Your task to perform on an android device: Add logitech g910 to the cart on bestbuy, then select checkout. Image 0: 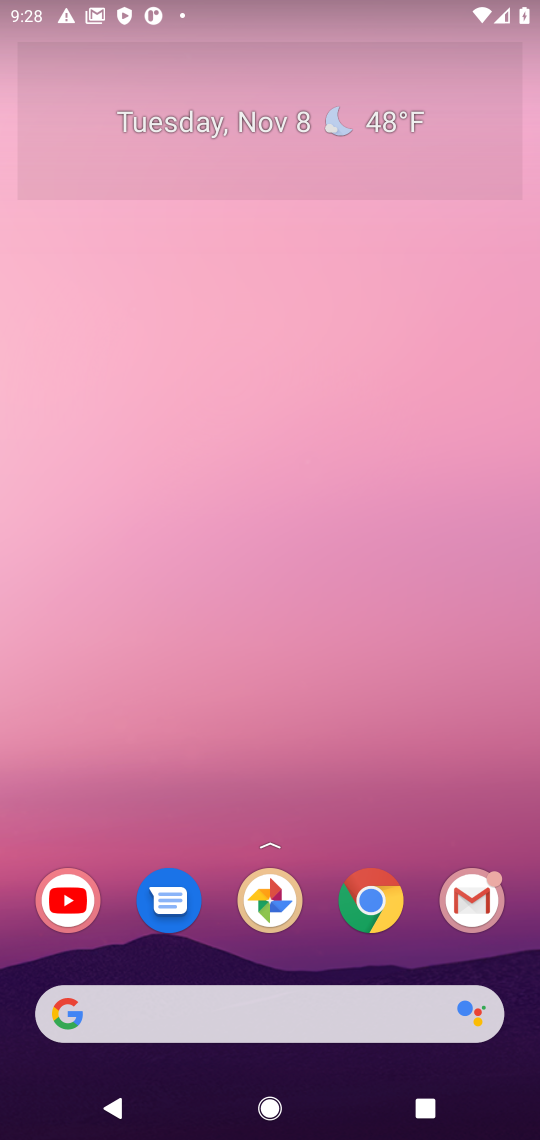
Step 0: click (362, 892)
Your task to perform on an android device: Add logitech g910 to the cart on bestbuy, then select checkout. Image 1: 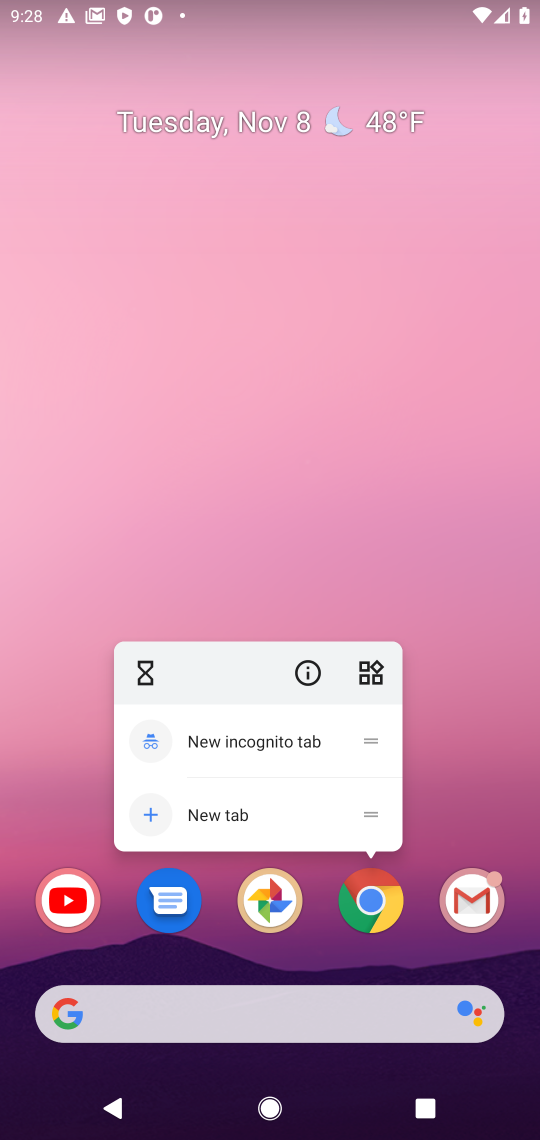
Step 1: click (364, 892)
Your task to perform on an android device: Add logitech g910 to the cart on bestbuy, then select checkout. Image 2: 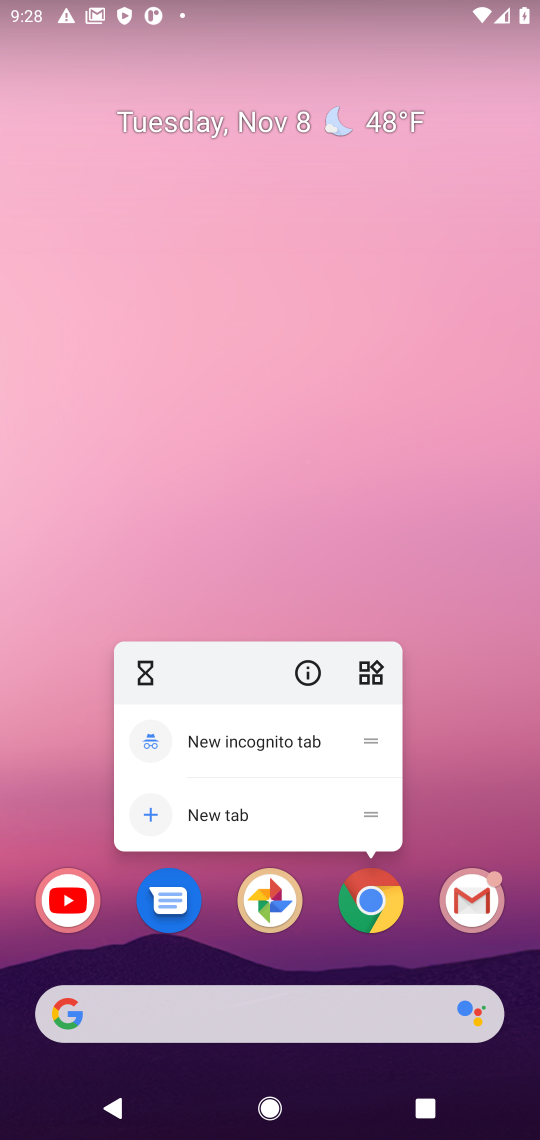
Step 2: click (364, 892)
Your task to perform on an android device: Add logitech g910 to the cart on bestbuy, then select checkout. Image 3: 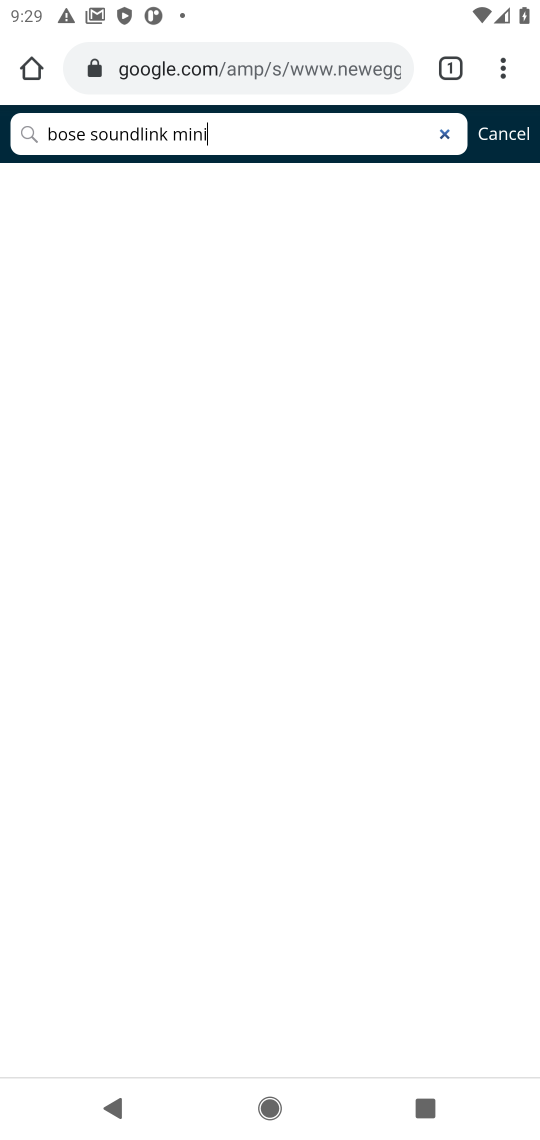
Step 3: click (213, 75)
Your task to perform on an android device: Add logitech g910 to the cart on bestbuy, then select checkout. Image 4: 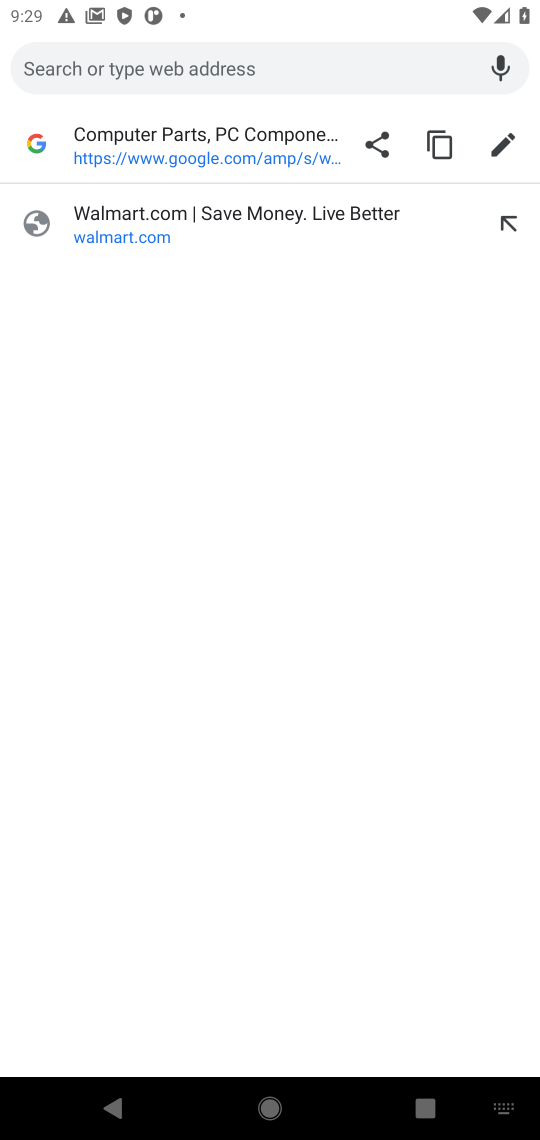
Step 4: type "bestbuy"
Your task to perform on an android device: Add logitech g910 to the cart on bestbuy, then select checkout. Image 5: 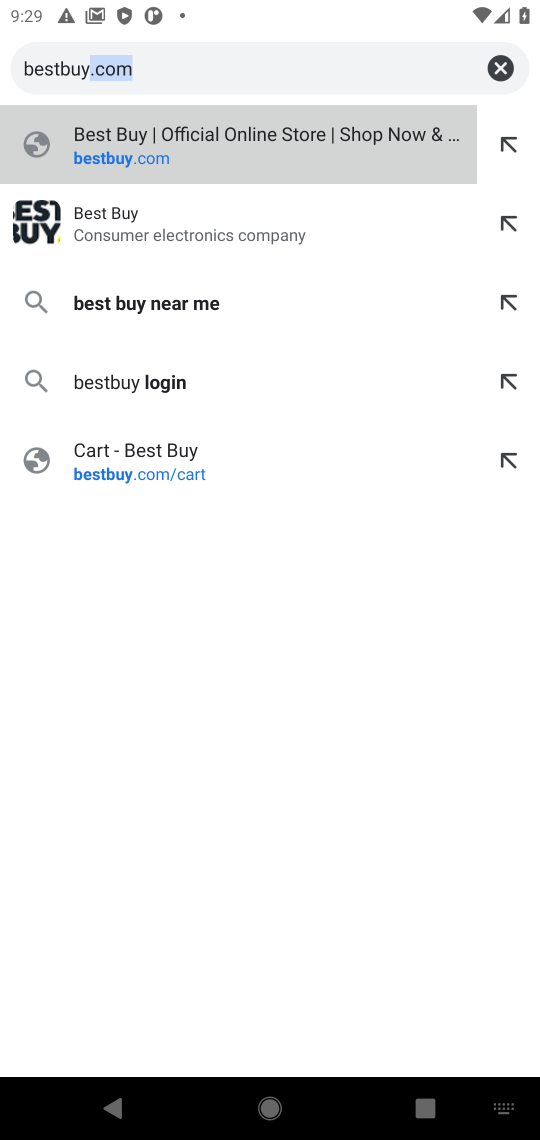
Step 5: click (116, 228)
Your task to perform on an android device: Add logitech g910 to the cart on bestbuy, then select checkout. Image 6: 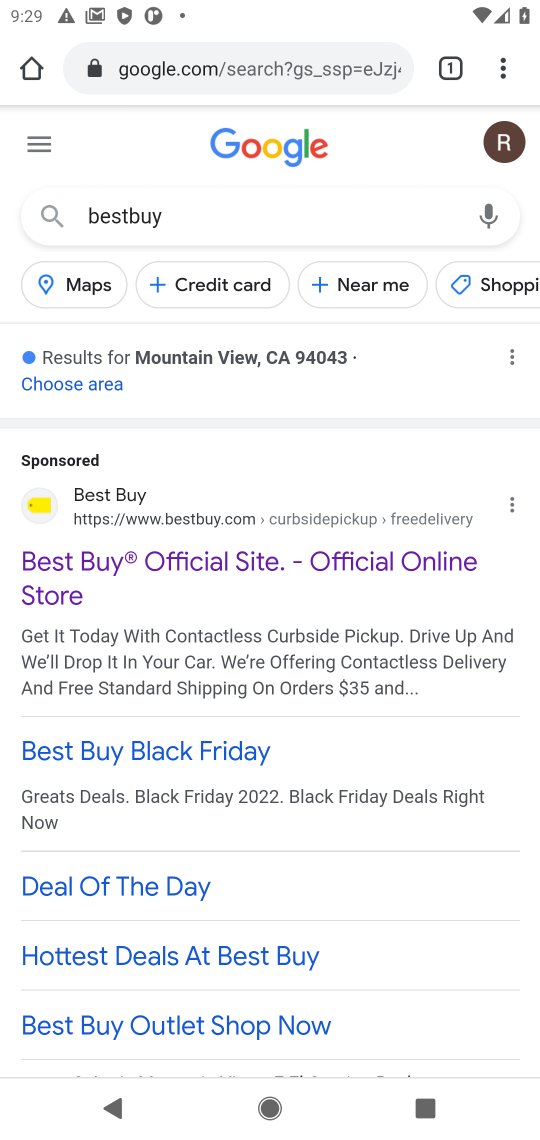
Step 6: drag from (239, 863) to (259, 422)
Your task to perform on an android device: Add logitech g910 to the cart on bestbuy, then select checkout. Image 7: 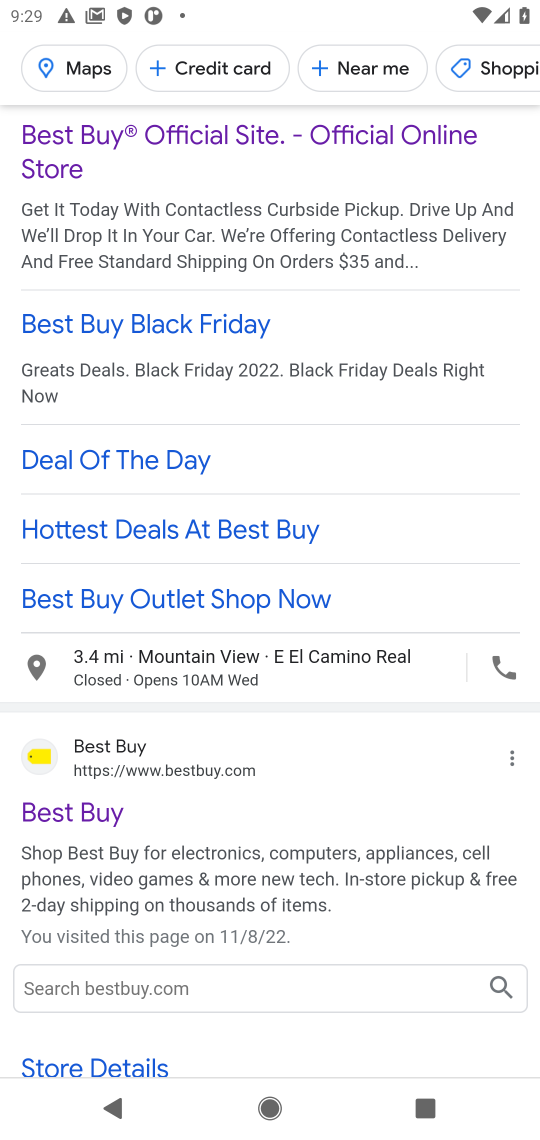
Step 7: click (107, 818)
Your task to perform on an android device: Add logitech g910 to the cart on bestbuy, then select checkout. Image 8: 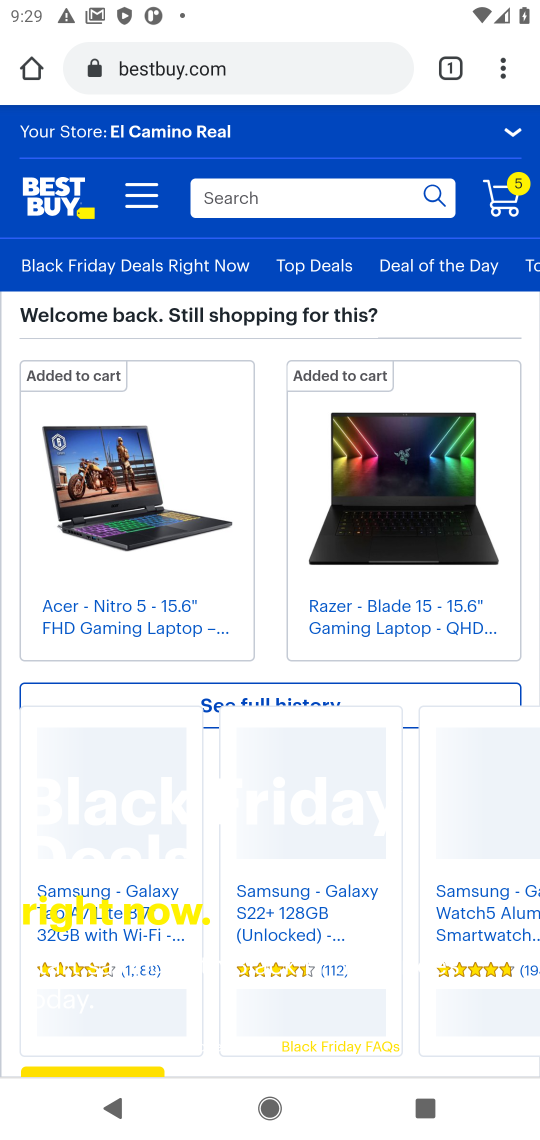
Step 8: click (253, 207)
Your task to perform on an android device: Add logitech g910 to the cart on bestbuy, then select checkout. Image 9: 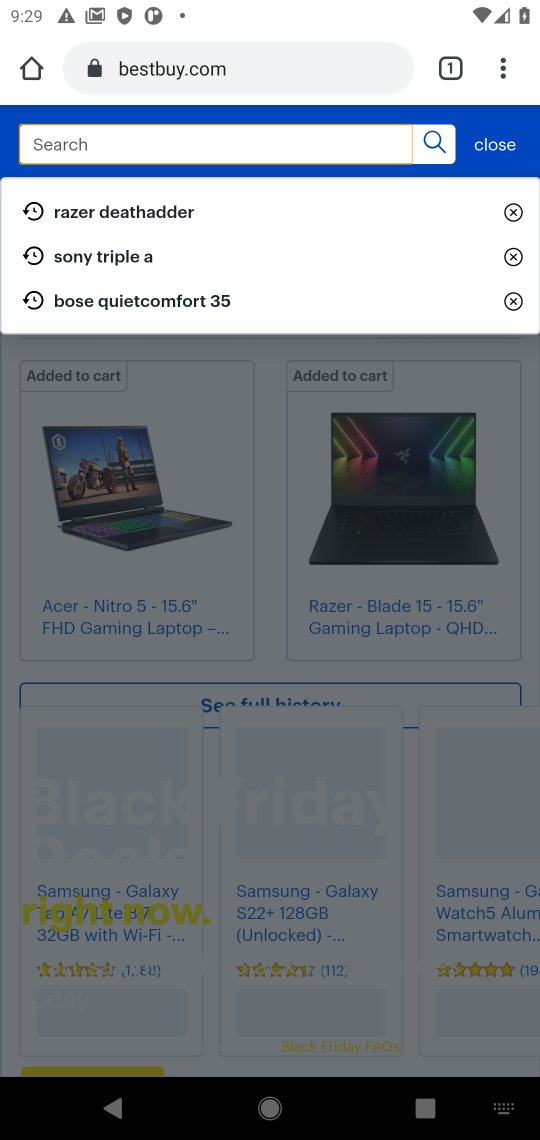
Step 9: type "logitech g910"
Your task to perform on an android device: Add logitech g910 to the cart on bestbuy, then select checkout. Image 10: 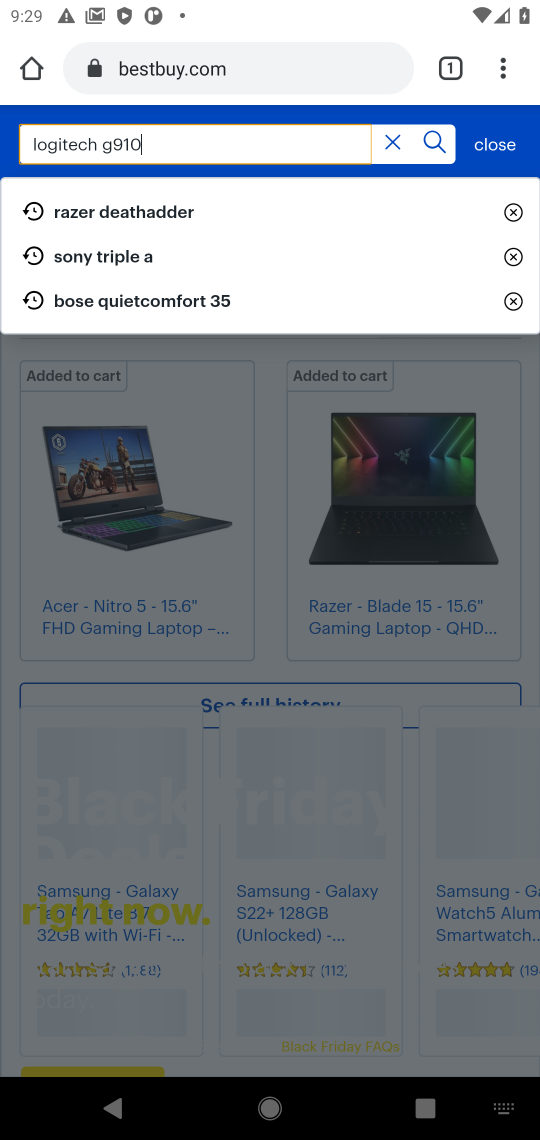
Step 10: type ""
Your task to perform on an android device: Add logitech g910 to the cart on bestbuy, then select checkout. Image 11: 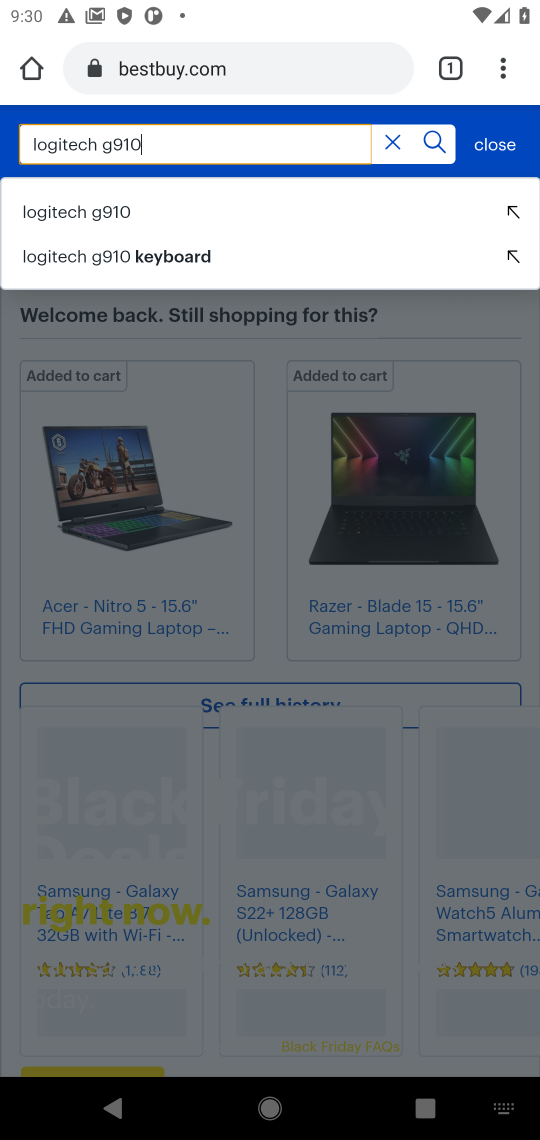
Step 11: click (66, 257)
Your task to perform on an android device: Add logitech g910 to the cart on bestbuy, then select checkout. Image 12: 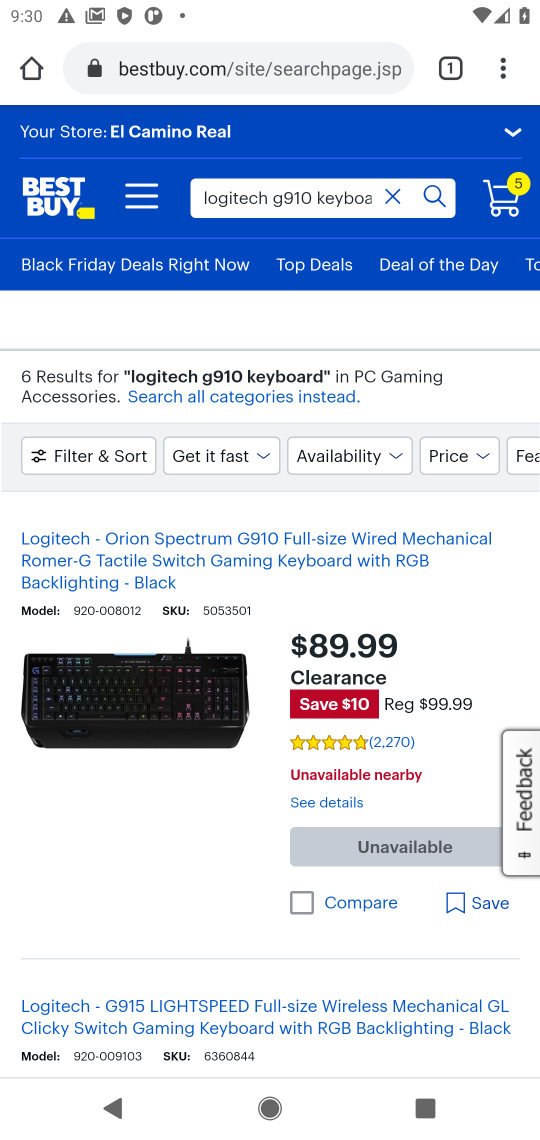
Step 12: click (192, 720)
Your task to perform on an android device: Add logitech g910 to the cart on bestbuy, then select checkout. Image 13: 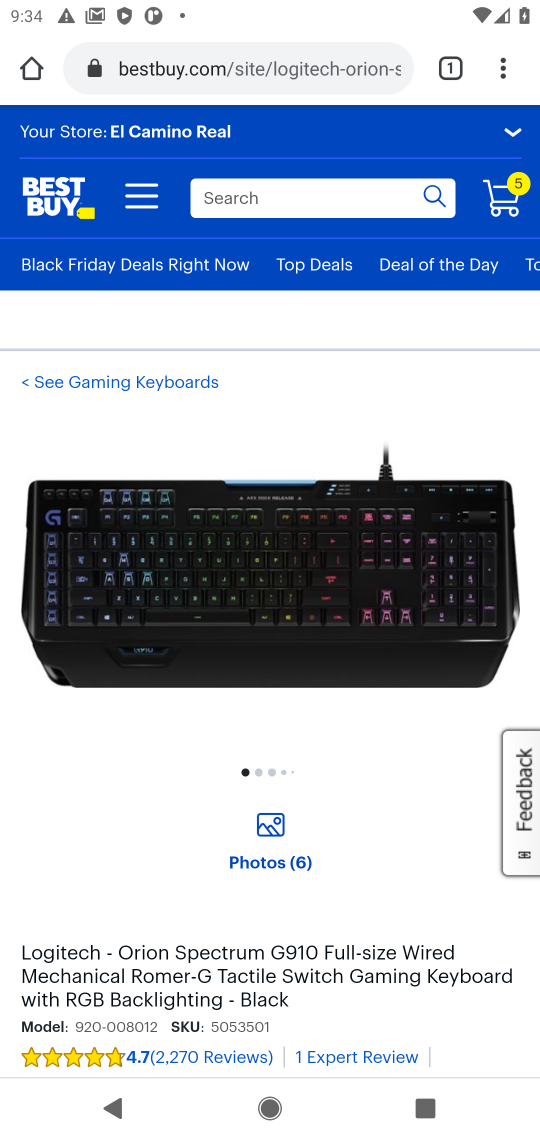
Step 13: task complete